Your task to perform on an android device: Open the calendar and show me this week's events? Image 0: 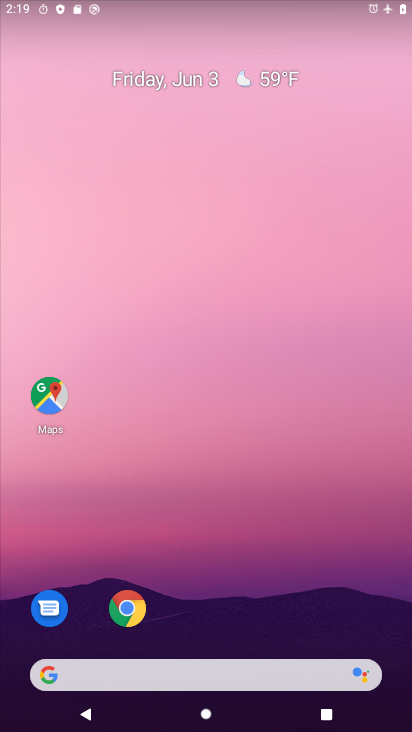
Step 0: drag from (206, 663) to (237, 350)
Your task to perform on an android device: Open the calendar and show me this week's events? Image 1: 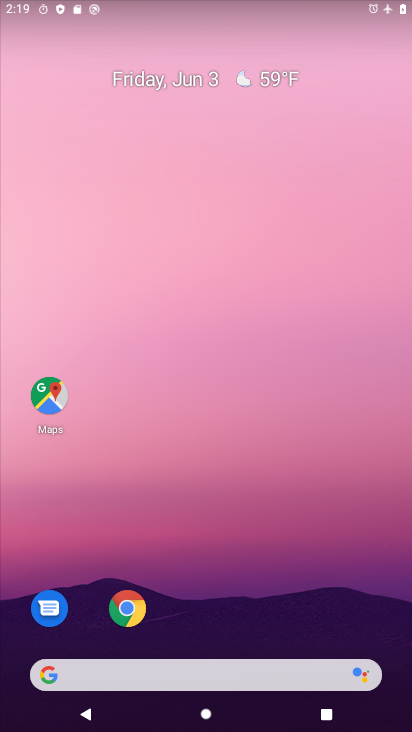
Step 1: drag from (208, 670) to (220, 308)
Your task to perform on an android device: Open the calendar and show me this week's events? Image 2: 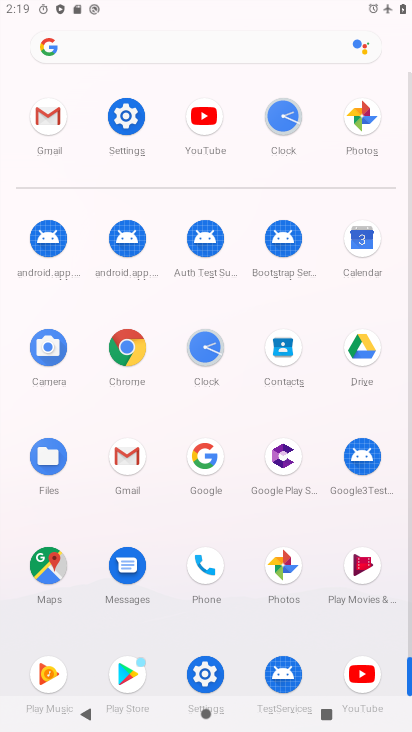
Step 2: click (366, 243)
Your task to perform on an android device: Open the calendar and show me this week's events? Image 3: 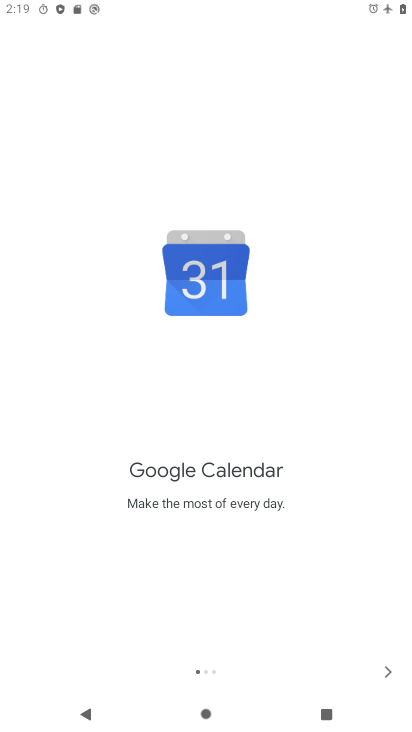
Step 3: click (377, 664)
Your task to perform on an android device: Open the calendar and show me this week's events? Image 4: 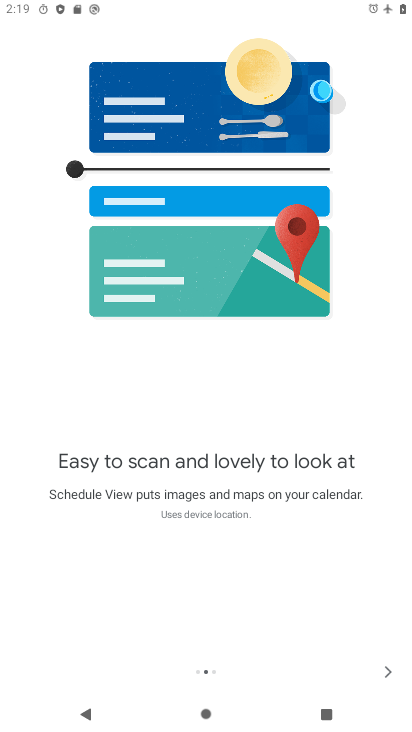
Step 4: click (377, 664)
Your task to perform on an android device: Open the calendar and show me this week's events? Image 5: 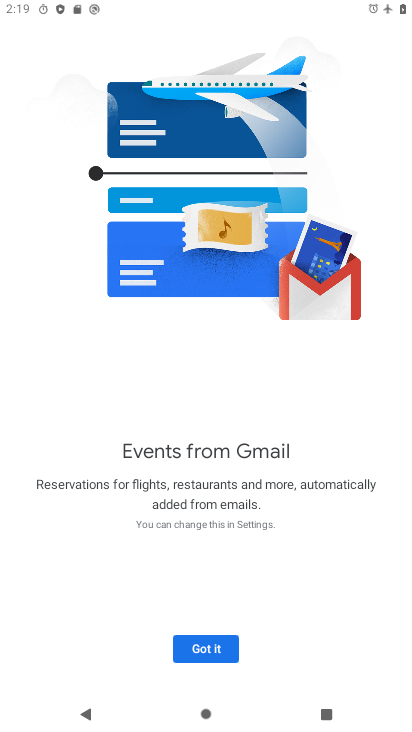
Step 5: click (377, 664)
Your task to perform on an android device: Open the calendar and show me this week's events? Image 6: 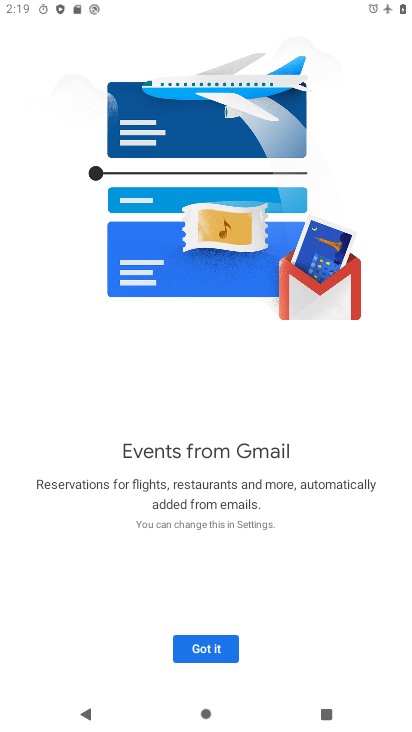
Step 6: click (221, 661)
Your task to perform on an android device: Open the calendar and show me this week's events? Image 7: 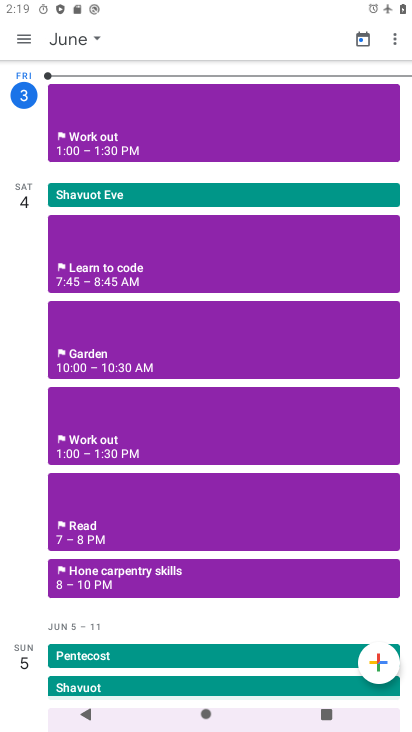
Step 7: click (27, 34)
Your task to perform on an android device: Open the calendar and show me this week's events? Image 8: 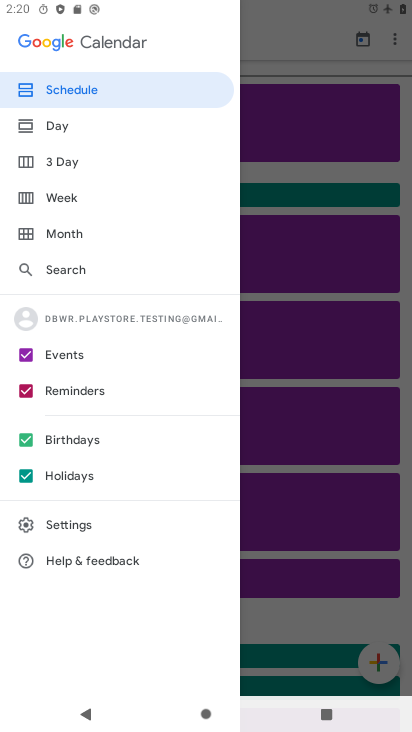
Step 8: click (83, 195)
Your task to perform on an android device: Open the calendar and show me this week's events? Image 9: 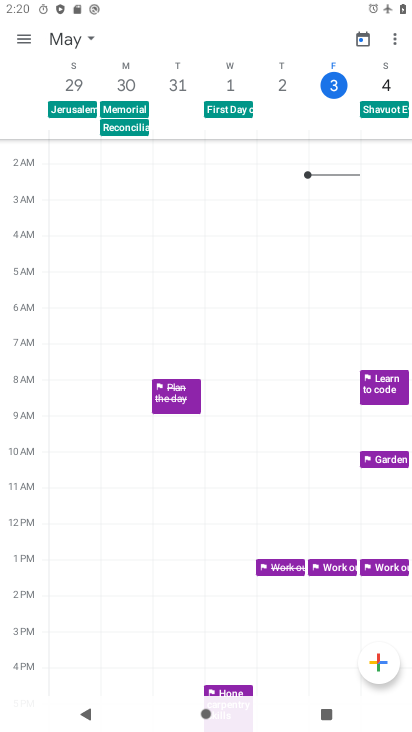
Step 9: task complete